Your task to perform on an android device: find which apps use the phone's location Image 0: 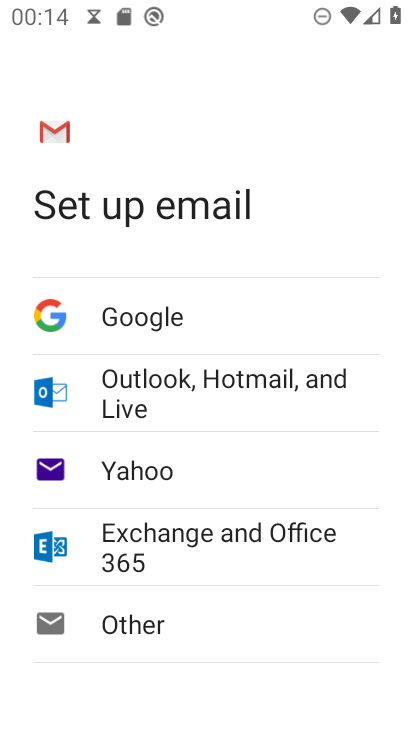
Step 0: press home button
Your task to perform on an android device: find which apps use the phone's location Image 1: 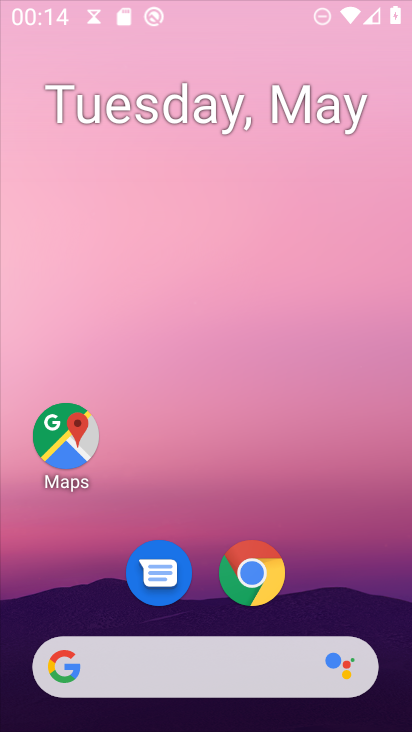
Step 1: drag from (328, 546) to (265, 79)
Your task to perform on an android device: find which apps use the phone's location Image 2: 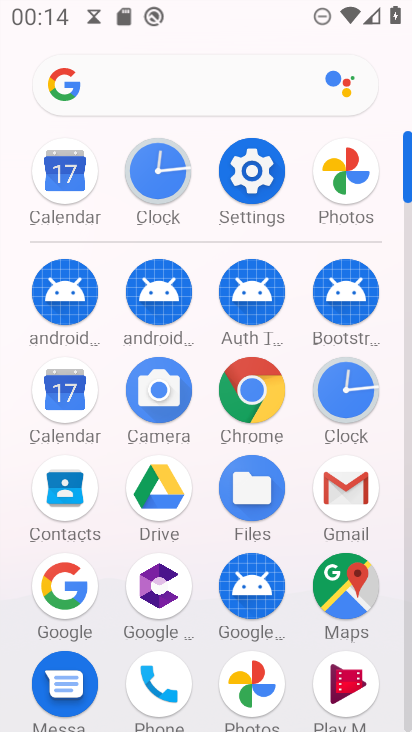
Step 2: click (257, 170)
Your task to perform on an android device: find which apps use the phone's location Image 3: 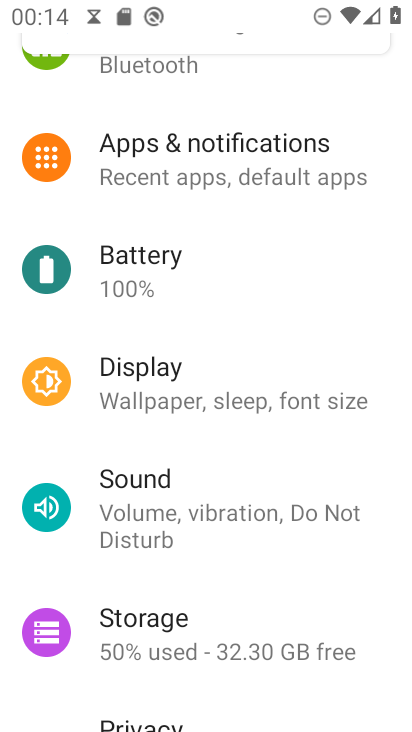
Step 3: drag from (265, 571) to (265, 106)
Your task to perform on an android device: find which apps use the phone's location Image 4: 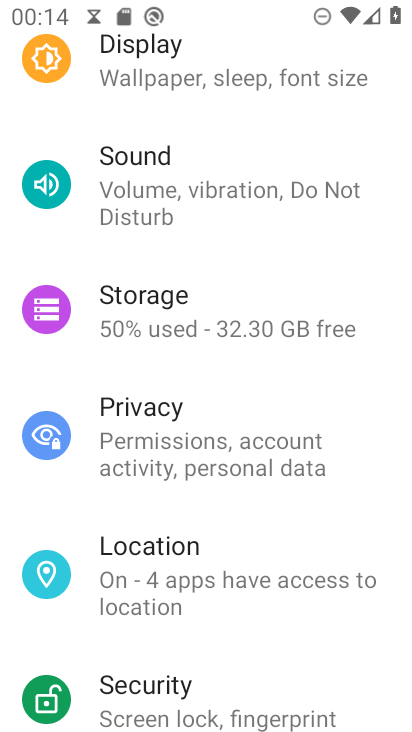
Step 4: click (206, 554)
Your task to perform on an android device: find which apps use the phone's location Image 5: 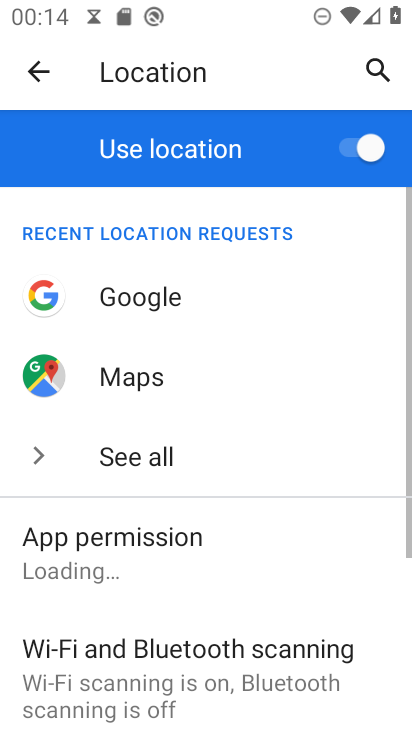
Step 5: click (175, 551)
Your task to perform on an android device: find which apps use the phone's location Image 6: 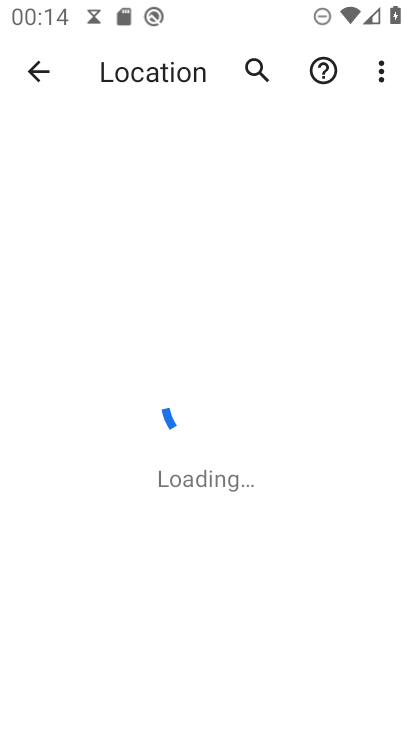
Step 6: task complete